Your task to perform on an android device: Open Google Chrome and open the bookmarks view Image 0: 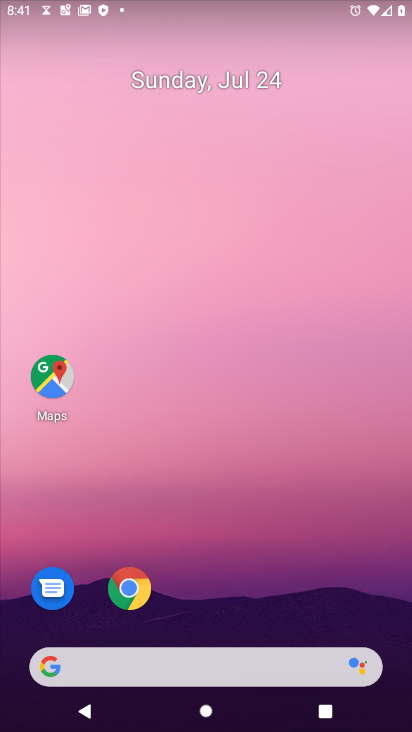
Step 0: press home button
Your task to perform on an android device: Open Google Chrome and open the bookmarks view Image 1: 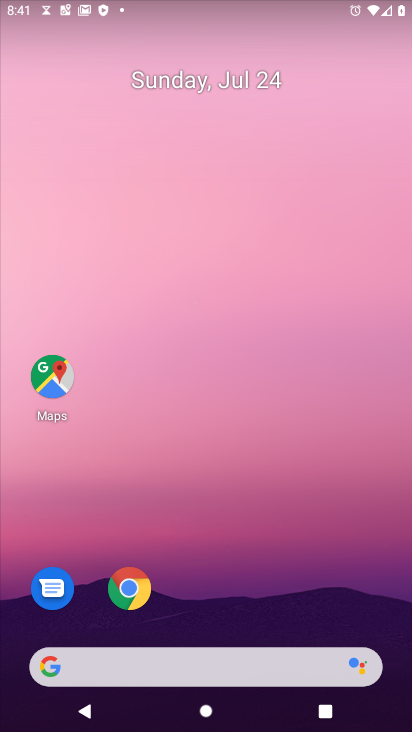
Step 1: click (131, 586)
Your task to perform on an android device: Open Google Chrome and open the bookmarks view Image 2: 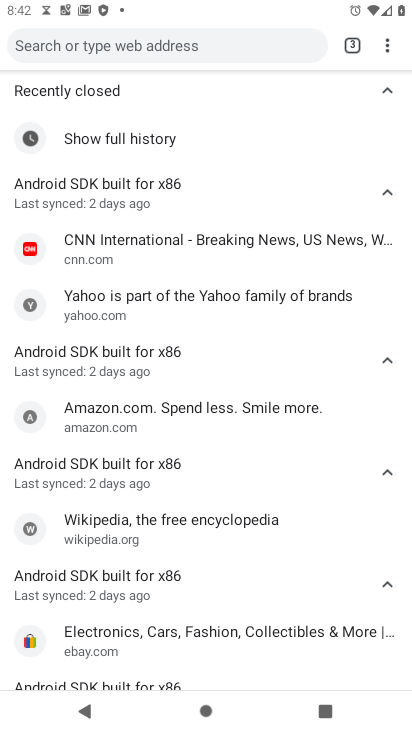
Step 2: press back button
Your task to perform on an android device: Open Google Chrome and open the bookmarks view Image 3: 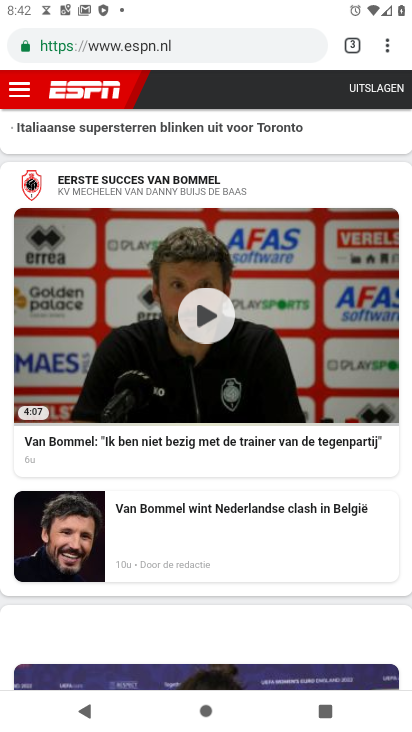
Step 3: click (394, 43)
Your task to perform on an android device: Open Google Chrome and open the bookmarks view Image 4: 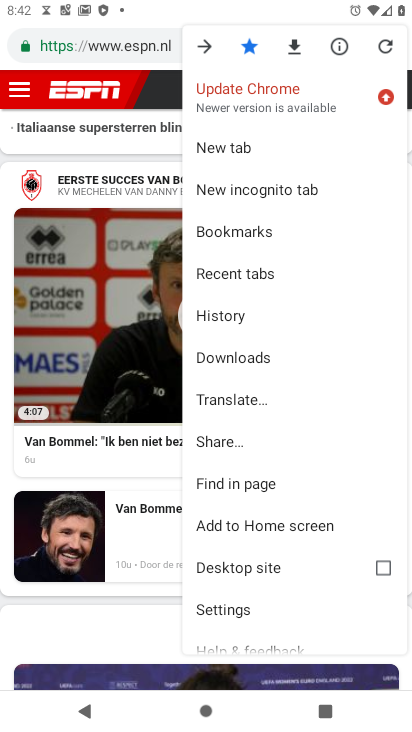
Step 4: click (271, 229)
Your task to perform on an android device: Open Google Chrome and open the bookmarks view Image 5: 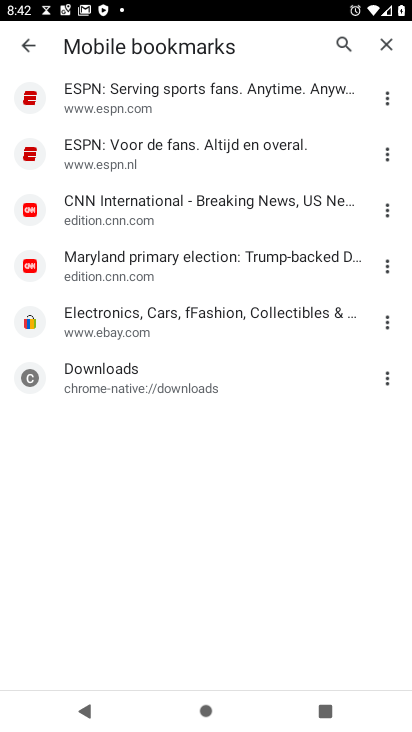
Step 5: task complete